Your task to perform on an android device: toggle sleep mode Image 0: 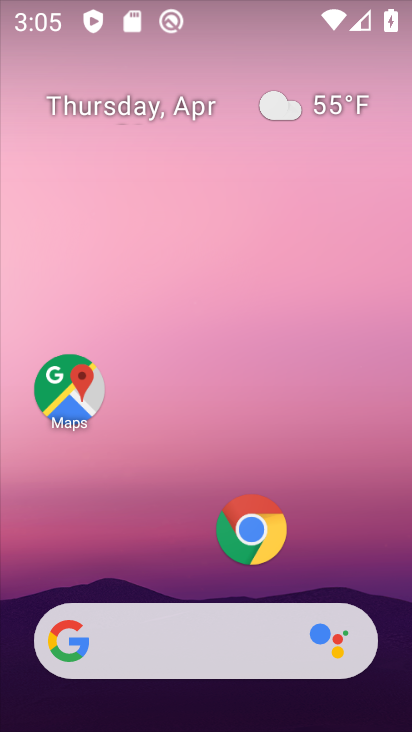
Step 0: drag from (159, 530) to (212, 126)
Your task to perform on an android device: toggle sleep mode Image 1: 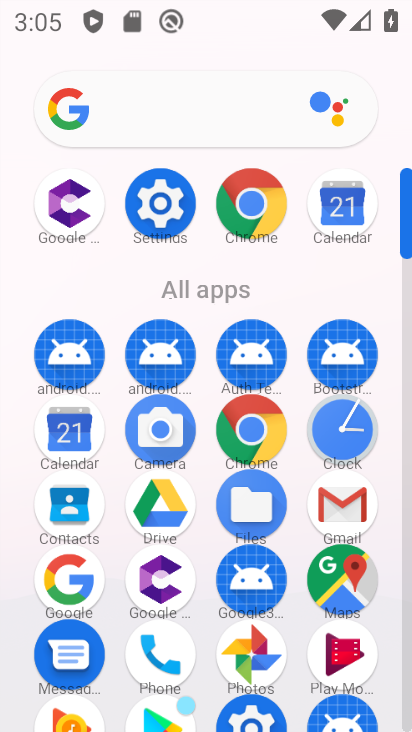
Step 1: drag from (293, 601) to (329, 233)
Your task to perform on an android device: toggle sleep mode Image 2: 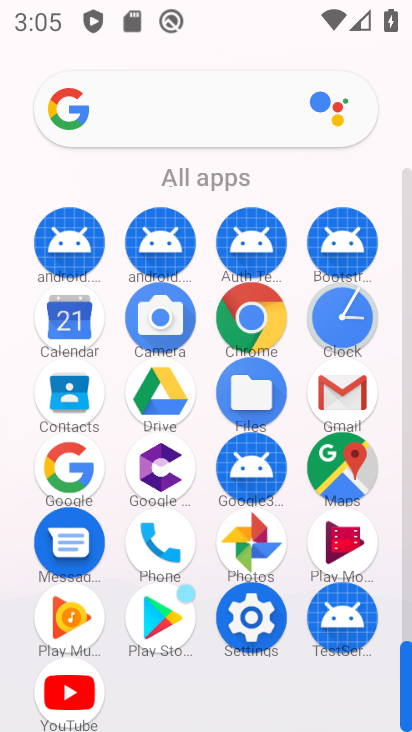
Step 2: click (257, 613)
Your task to perform on an android device: toggle sleep mode Image 3: 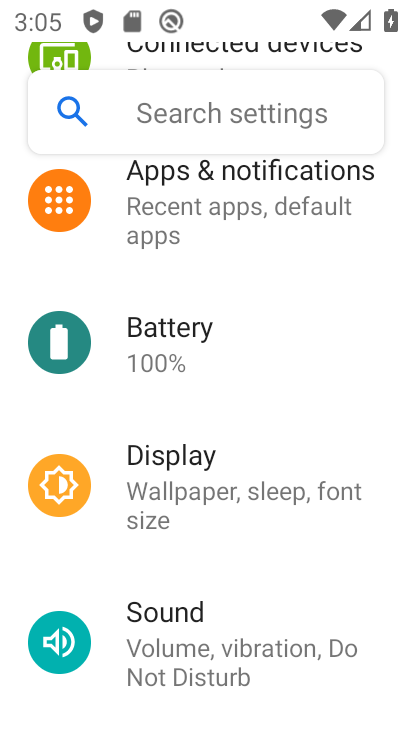
Step 3: click (284, 487)
Your task to perform on an android device: toggle sleep mode Image 4: 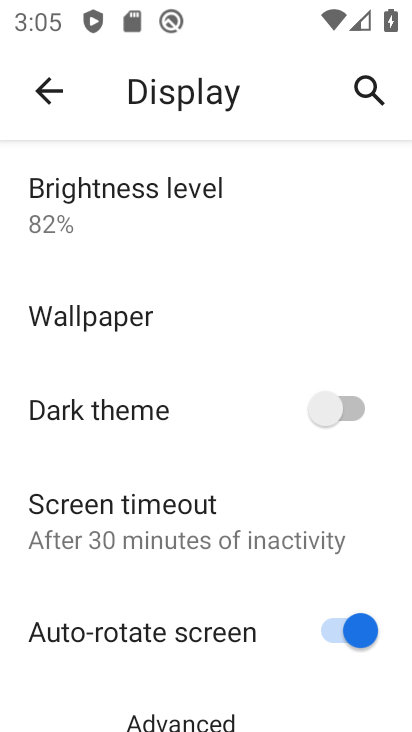
Step 4: task complete